Your task to perform on an android device: delete a single message in the gmail app Image 0: 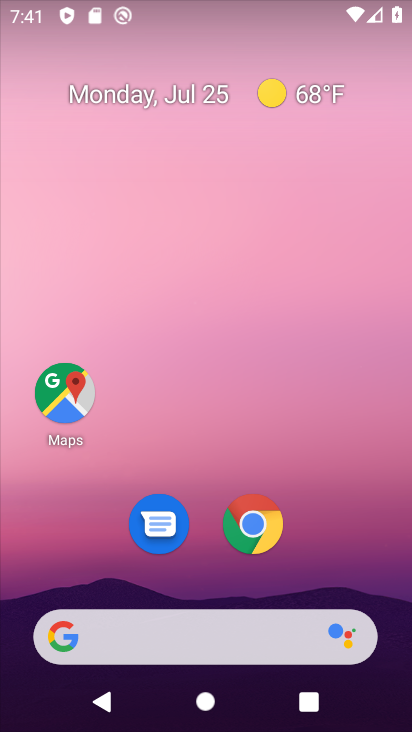
Step 0: drag from (365, 529) to (374, 154)
Your task to perform on an android device: delete a single message in the gmail app Image 1: 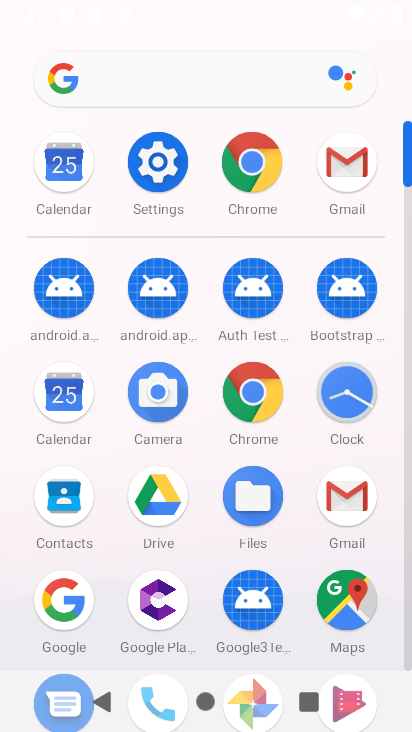
Step 1: click (350, 166)
Your task to perform on an android device: delete a single message in the gmail app Image 2: 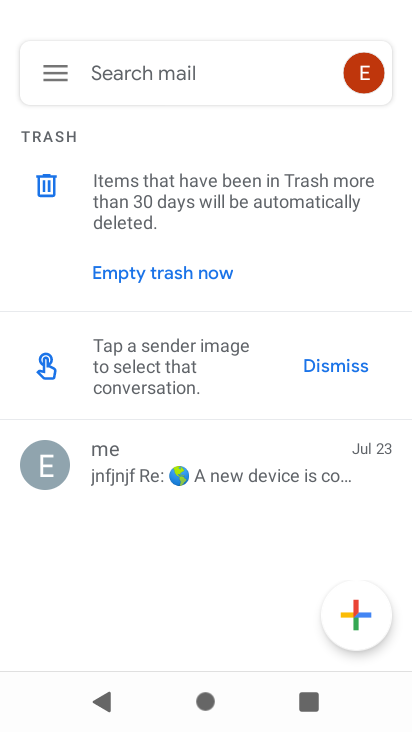
Step 2: click (93, 465)
Your task to perform on an android device: delete a single message in the gmail app Image 3: 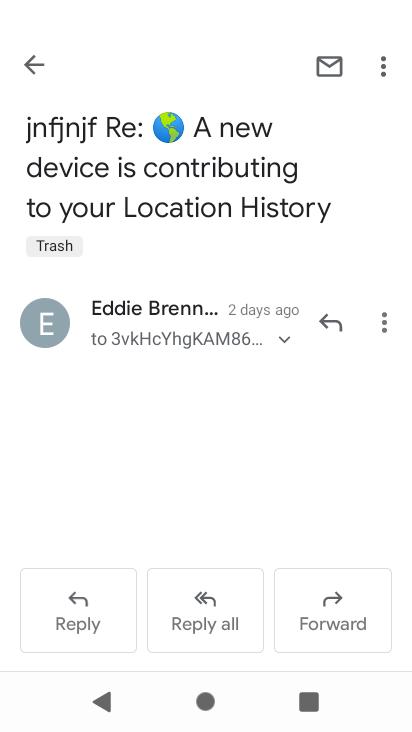
Step 3: click (33, 61)
Your task to perform on an android device: delete a single message in the gmail app Image 4: 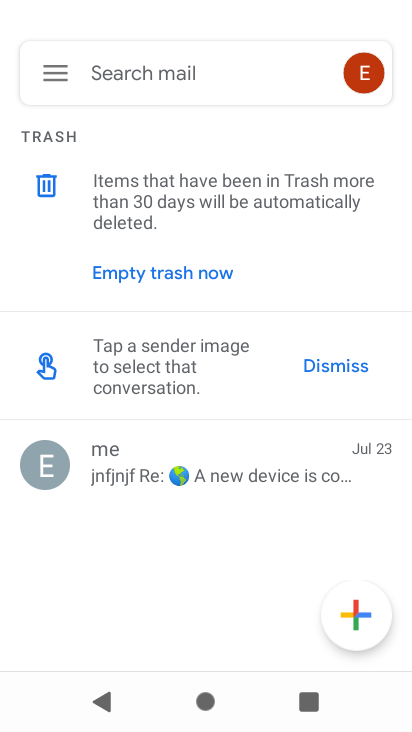
Step 4: click (54, 63)
Your task to perform on an android device: delete a single message in the gmail app Image 5: 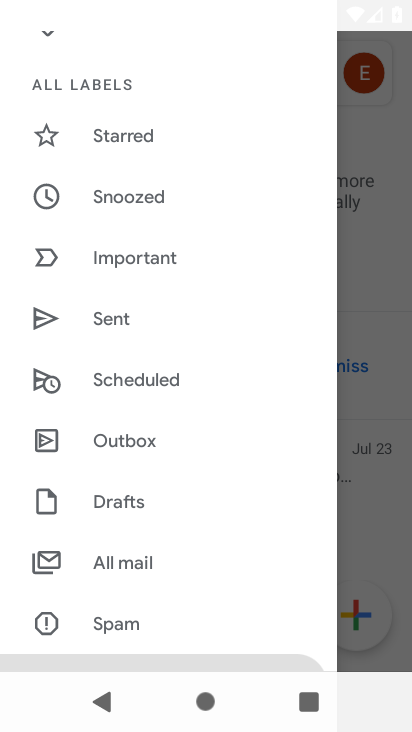
Step 5: click (136, 564)
Your task to perform on an android device: delete a single message in the gmail app Image 6: 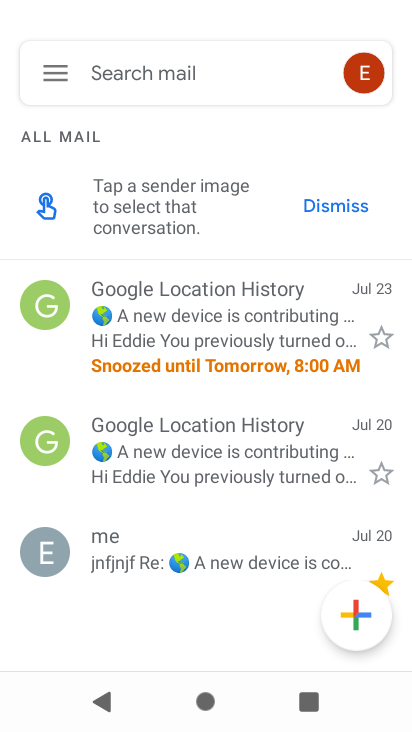
Step 6: click (139, 548)
Your task to perform on an android device: delete a single message in the gmail app Image 7: 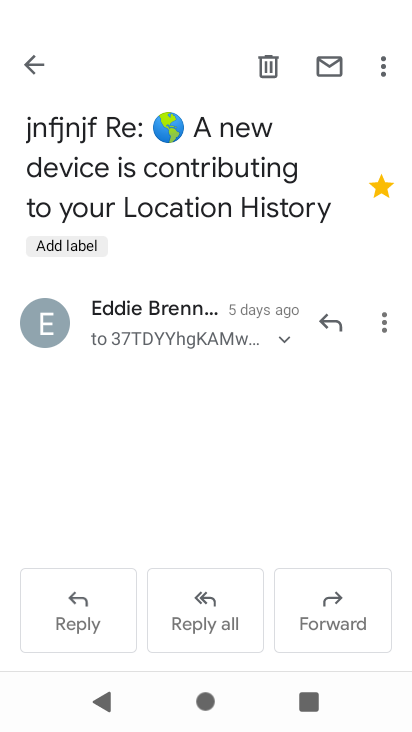
Step 7: click (265, 67)
Your task to perform on an android device: delete a single message in the gmail app Image 8: 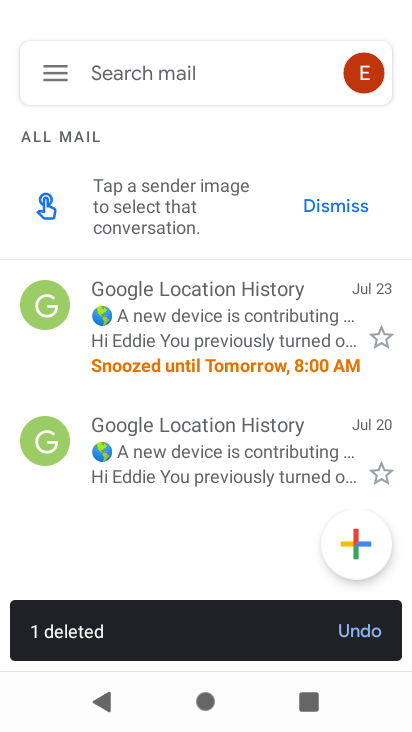
Step 8: task complete